Your task to perform on an android device: open app "NewsBreak: Local News & Alerts" (install if not already installed) Image 0: 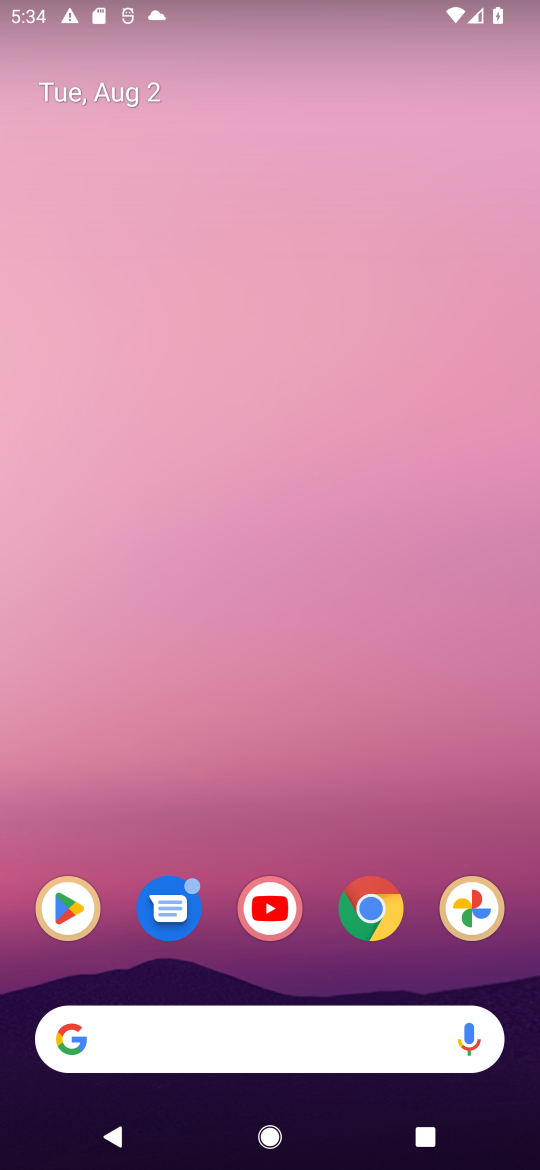
Step 0: press home button
Your task to perform on an android device: open app "NewsBreak: Local News & Alerts" (install if not already installed) Image 1: 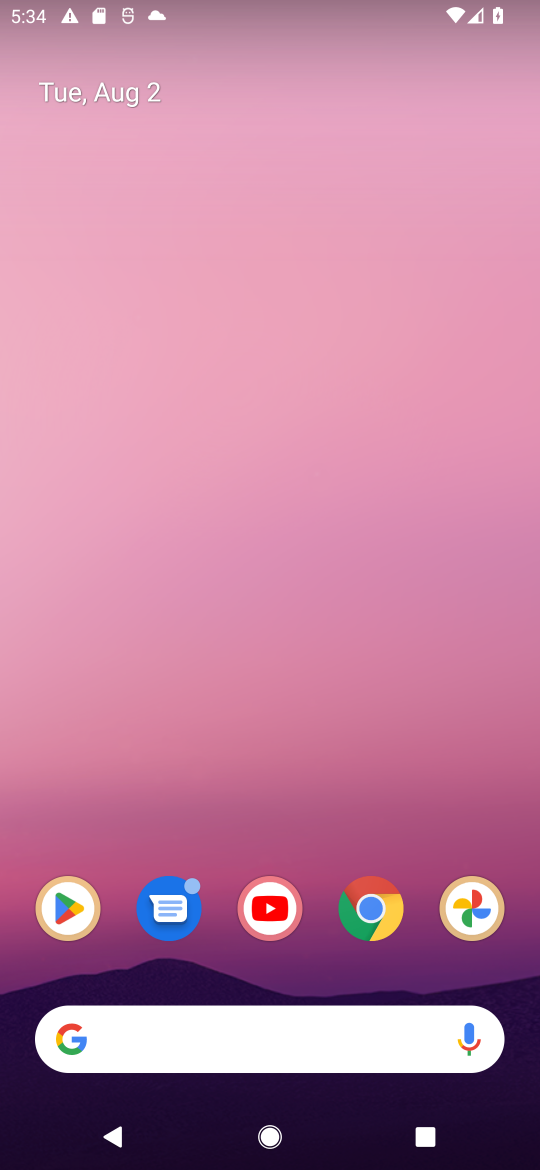
Step 1: click (62, 900)
Your task to perform on an android device: open app "NewsBreak: Local News & Alerts" (install if not already installed) Image 2: 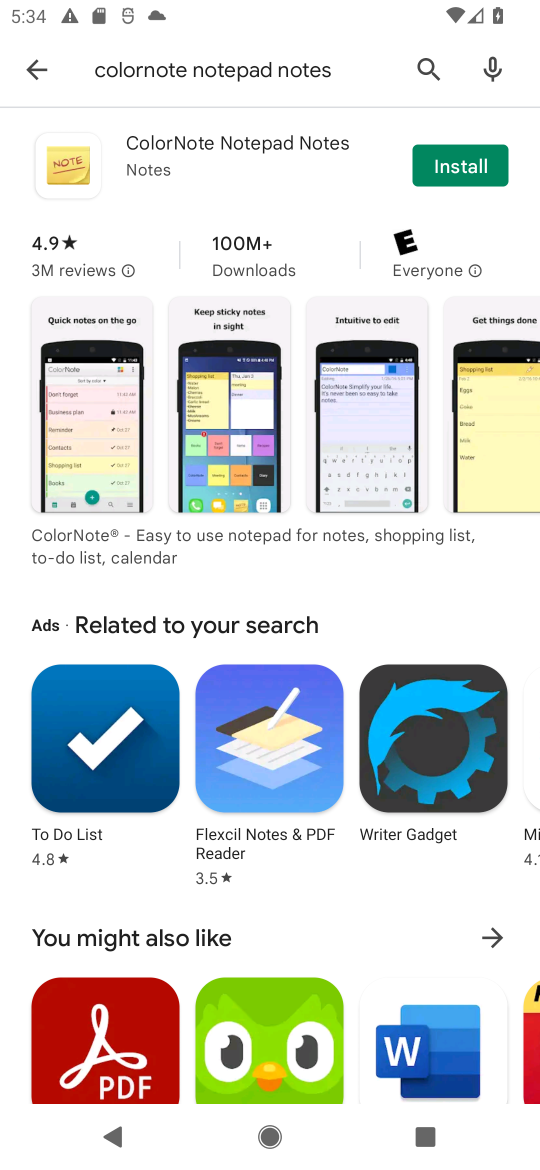
Step 2: click (415, 63)
Your task to perform on an android device: open app "NewsBreak: Local News & Alerts" (install if not already installed) Image 3: 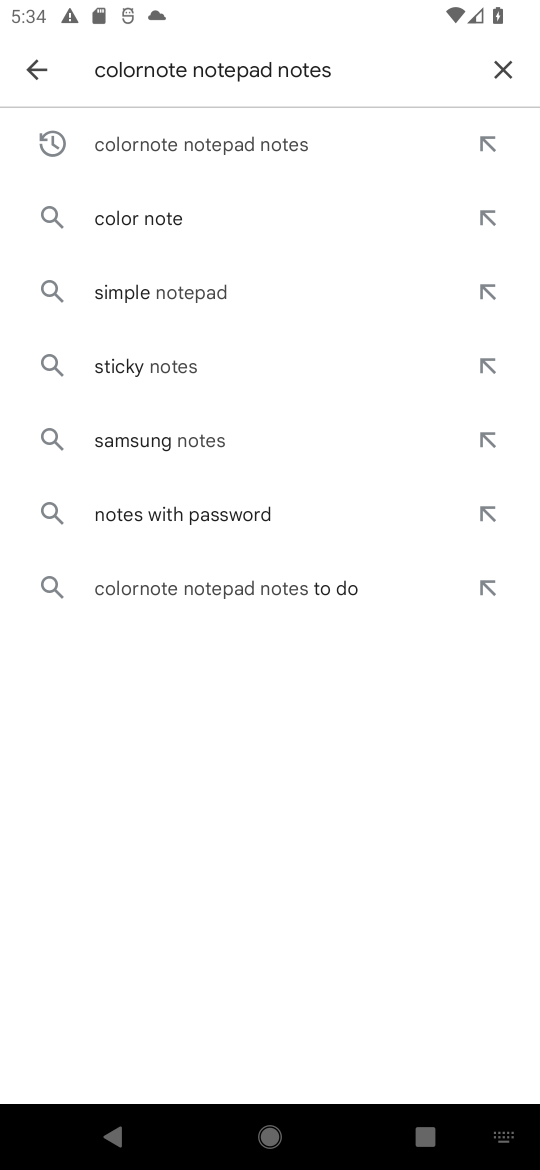
Step 3: click (502, 73)
Your task to perform on an android device: open app "NewsBreak: Local News & Alerts" (install if not already installed) Image 4: 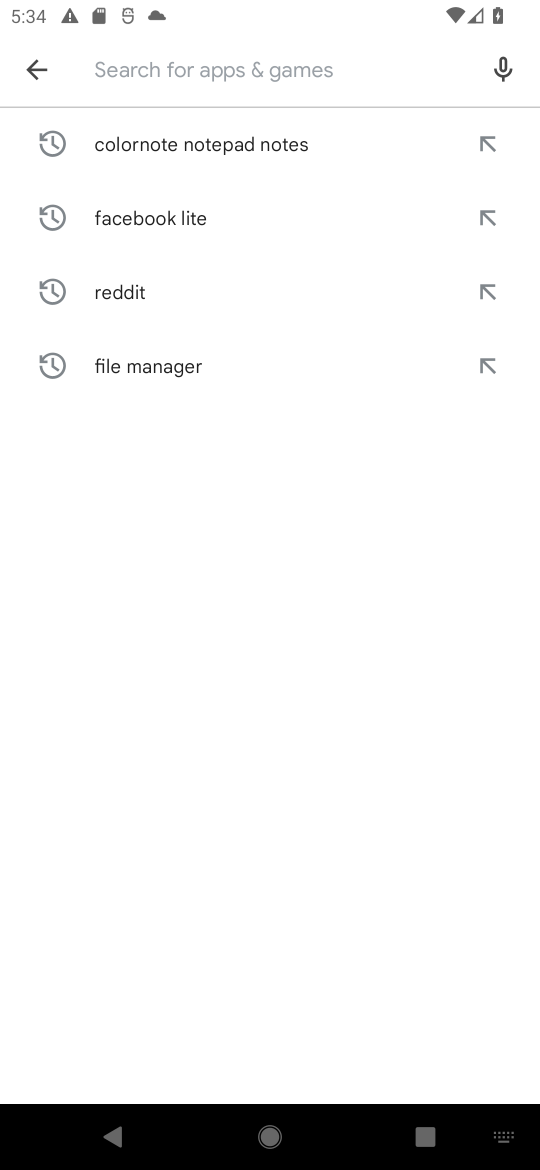
Step 4: type "NewsBreak: Local News & Alerts"
Your task to perform on an android device: open app "NewsBreak: Local News & Alerts" (install if not already installed) Image 5: 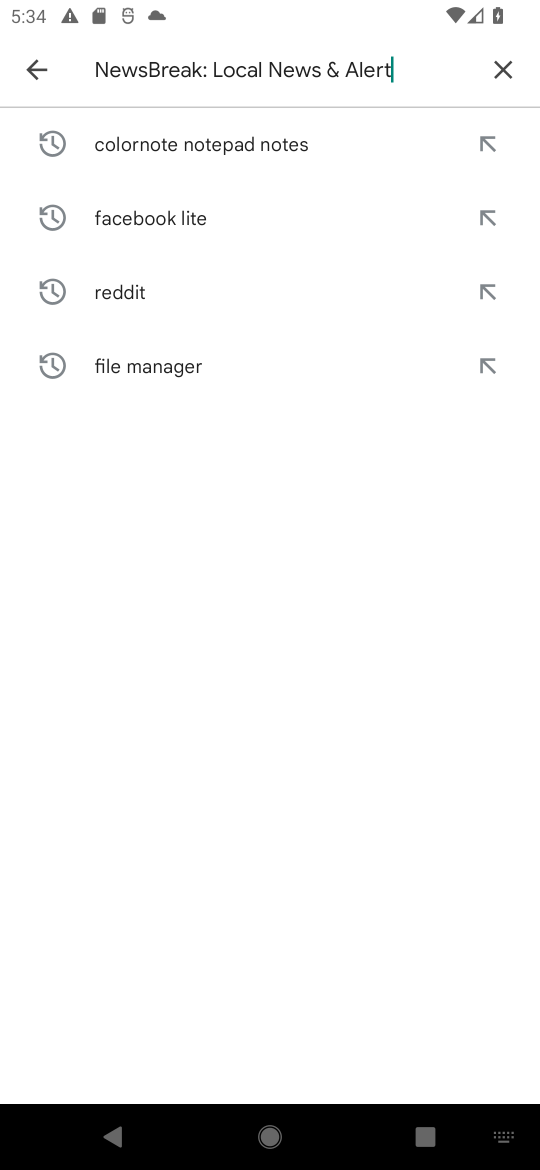
Step 5: type ""
Your task to perform on an android device: open app "NewsBreak: Local News & Alerts" (install if not already installed) Image 6: 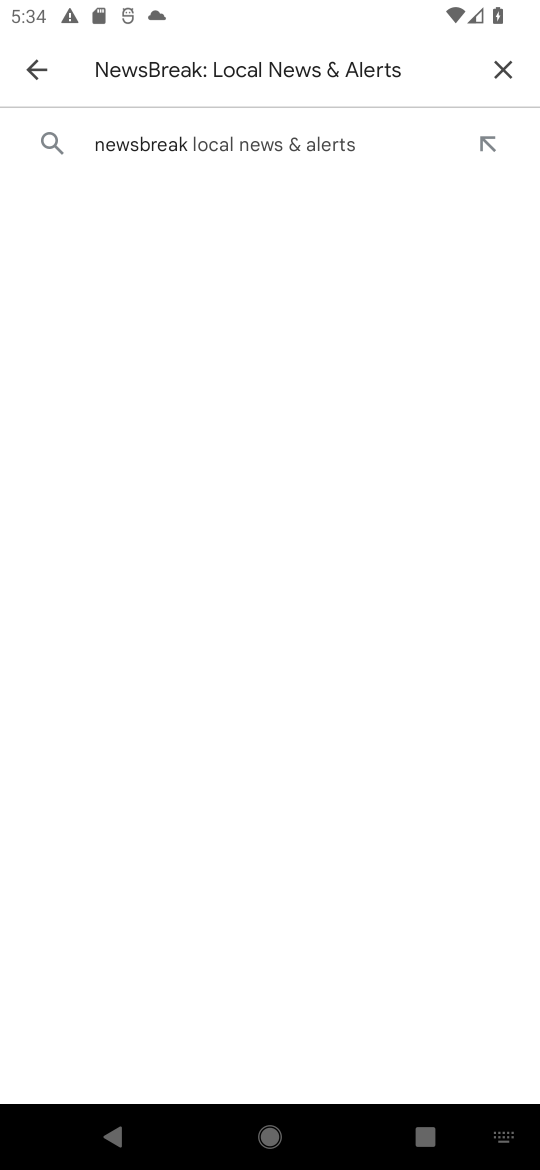
Step 6: click (187, 141)
Your task to perform on an android device: open app "NewsBreak: Local News & Alerts" (install if not already installed) Image 7: 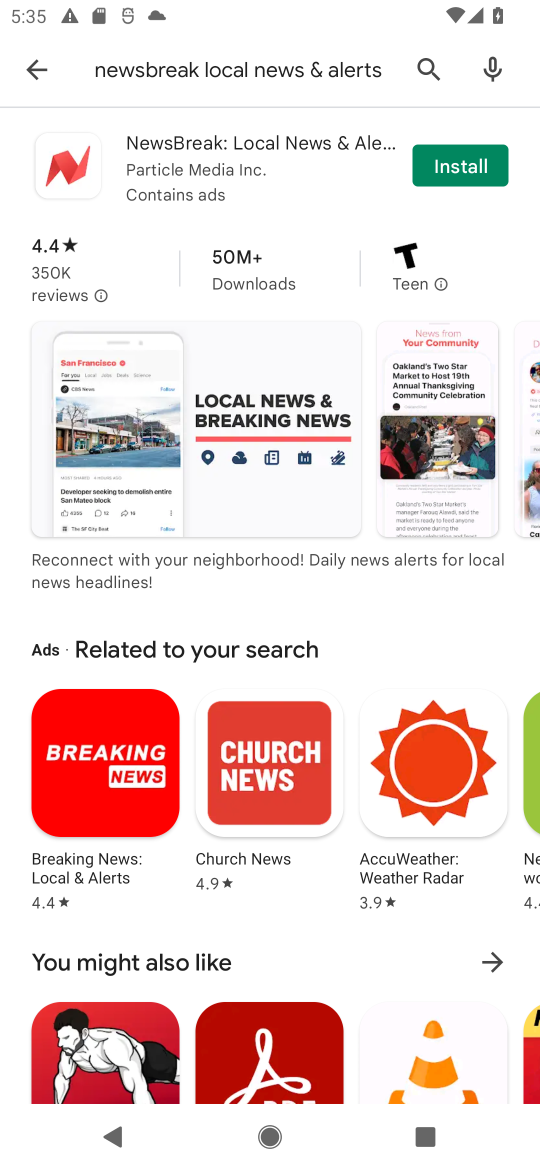
Step 7: click (462, 163)
Your task to perform on an android device: open app "NewsBreak: Local News & Alerts" (install if not already installed) Image 8: 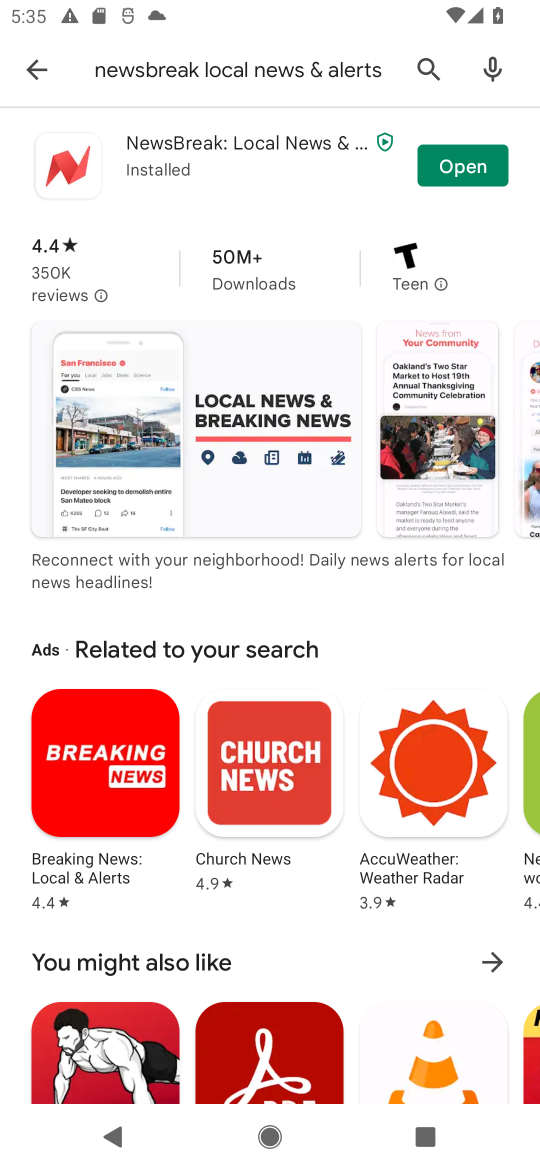
Step 8: click (464, 171)
Your task to perform on an android device: open app "NewsBreak: Local News & Alerts" (install if not already installed) Image 9: 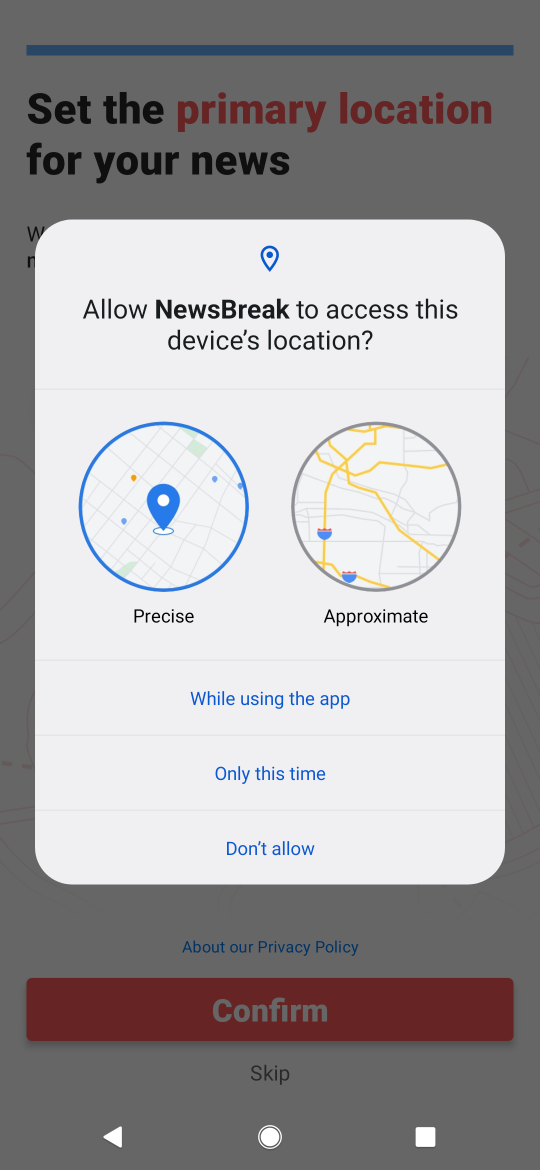
Step 9: click (279, 693)
Your task to perform on an android device: open app "NewsBreak: Local News & Alerts" (install if not already installed) Image 10: 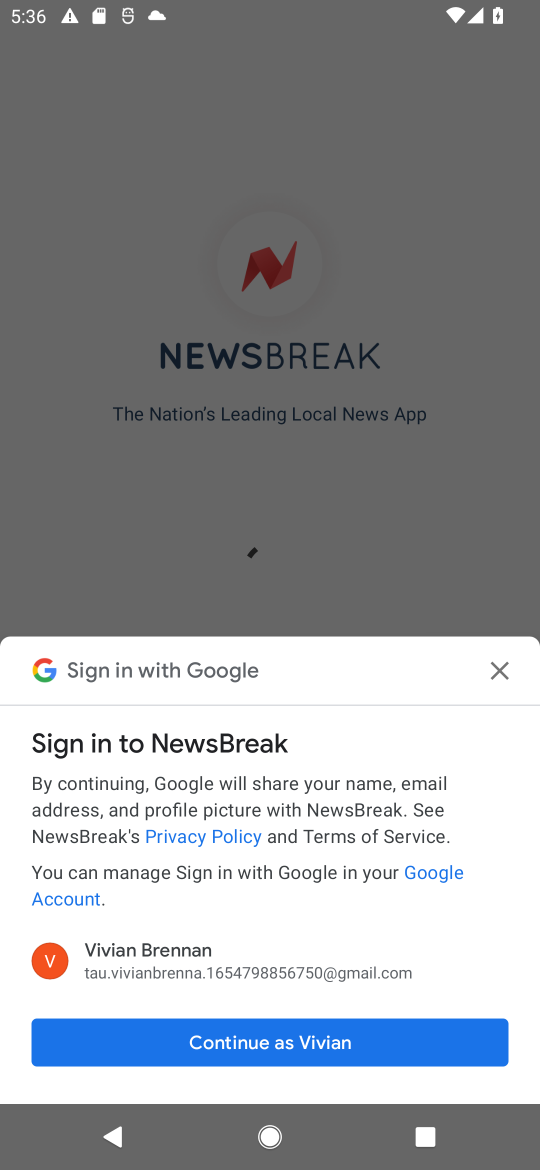
Step 10: click (296, 1043)
Your task to perform on an android device: open app "NewsBreak: Local News & Alerts" (install if not already installed) Image 11: 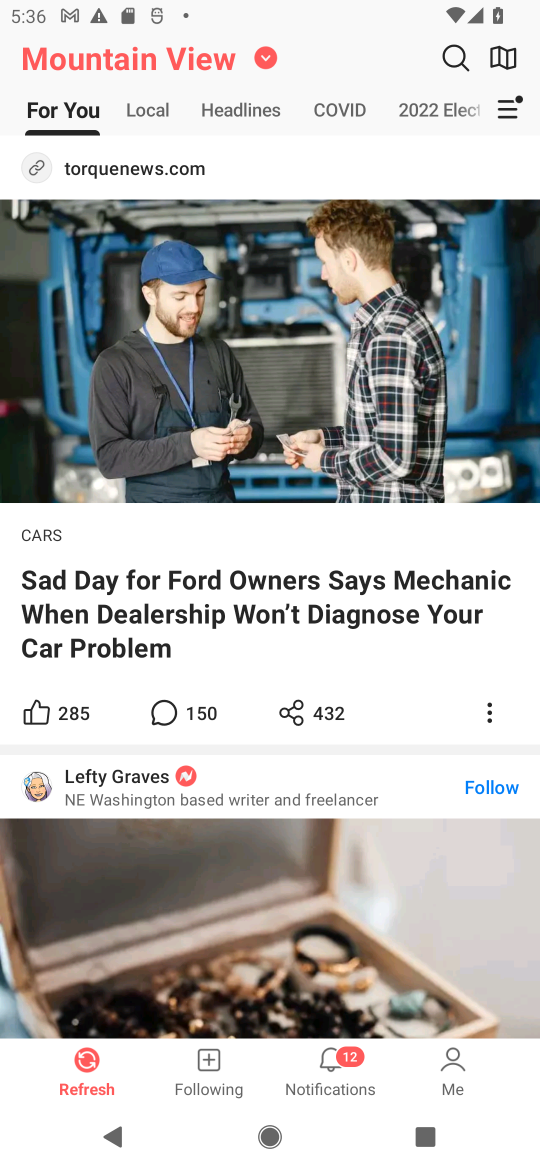
Step 11: task complete